Your task to perform on an android device: toggle sleep mode Image 0: 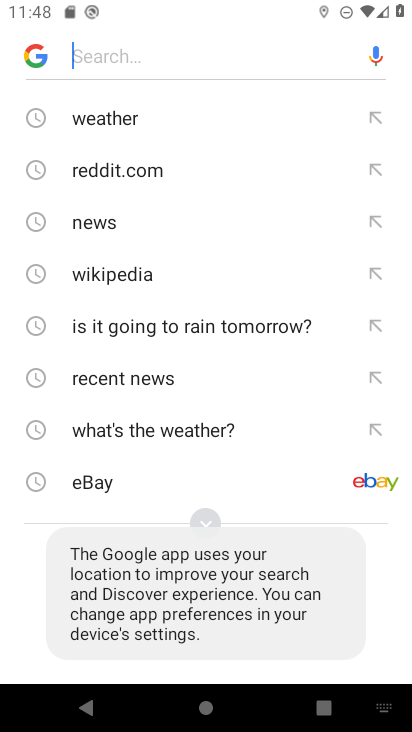
Step 0: press back button
Your task to perform on an android device: toggle sleep mode Image 1: 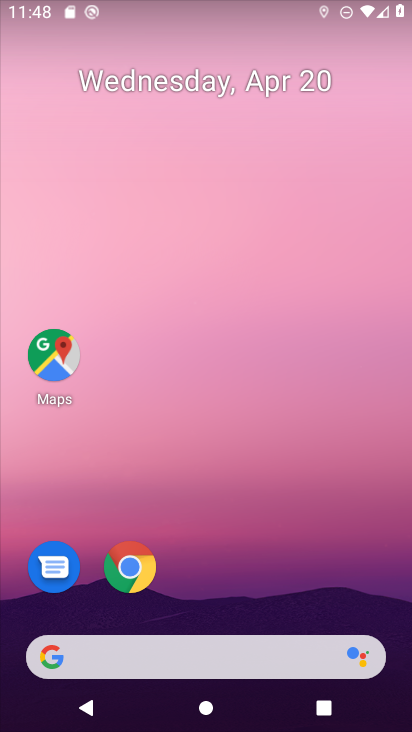
Step 1: drag from (180, 619) to (235, 111)
Your task to perform on an android device: toggle sleep mode Image 2: 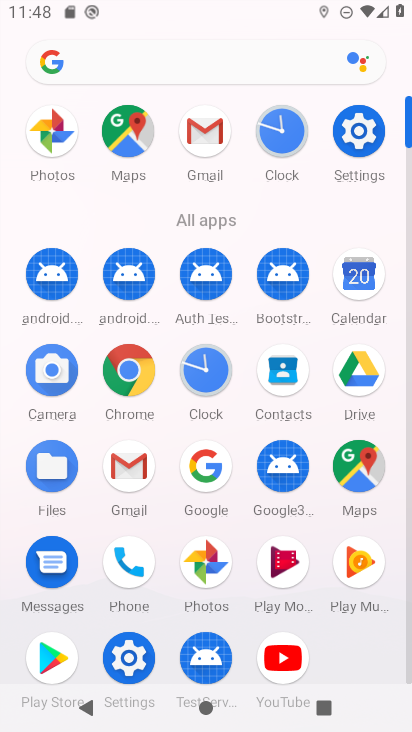
Step 2: click (128, 671)
Your task to perform on an android device: toggle sleep mode Image 3: 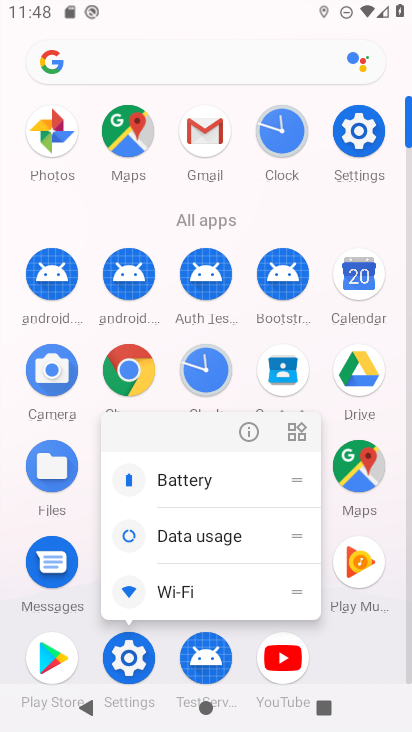
Step 3: click (127, 664)
Your task to perform on an android device: toggle sleep mode Image 4: 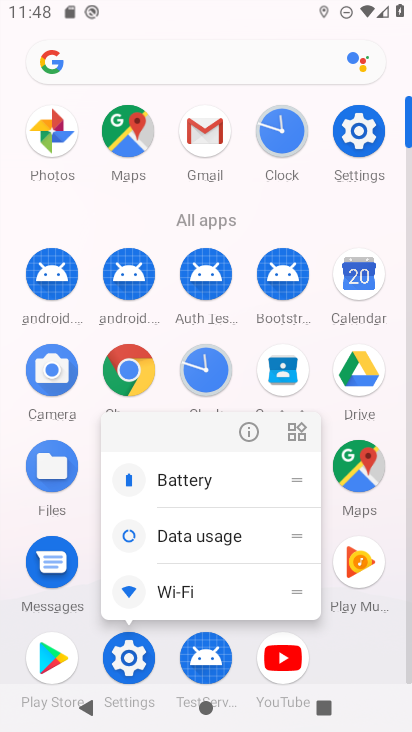
Step 4: click (121, 651)
Your task to perform on an android device: toggle sleep mode Image 5: 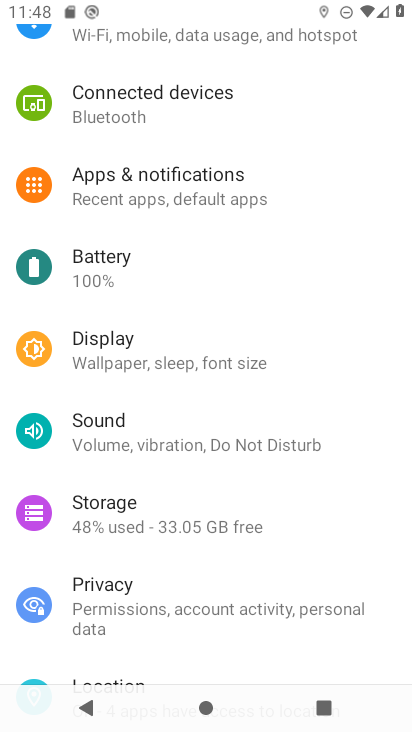
Step 5: click (173, 357)
Your task to perform on an android device: toggle sleep mode Image 6: 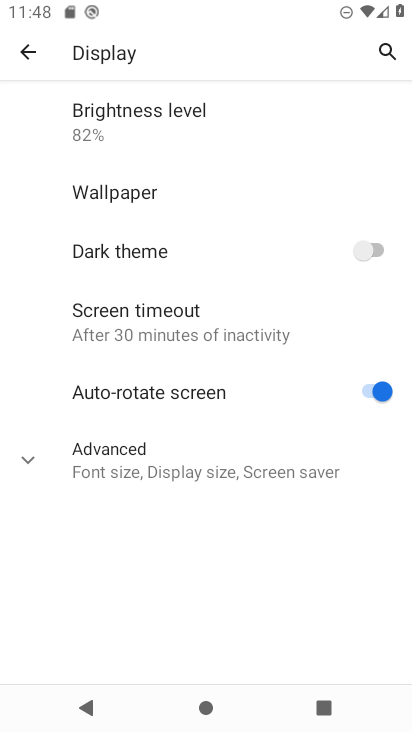
Step 6: click (183, 463)
Your task to perform on an android device: toggle sleep mode Image 7: 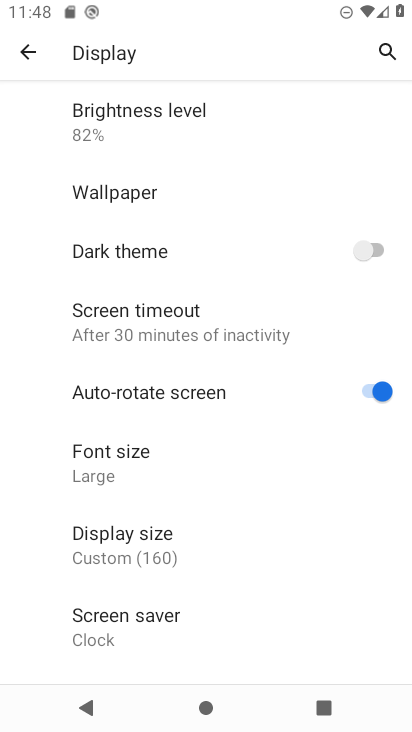
Step 7: task complete